Your task to perform on an android device: turn off data saver in the chrome app Image 0: 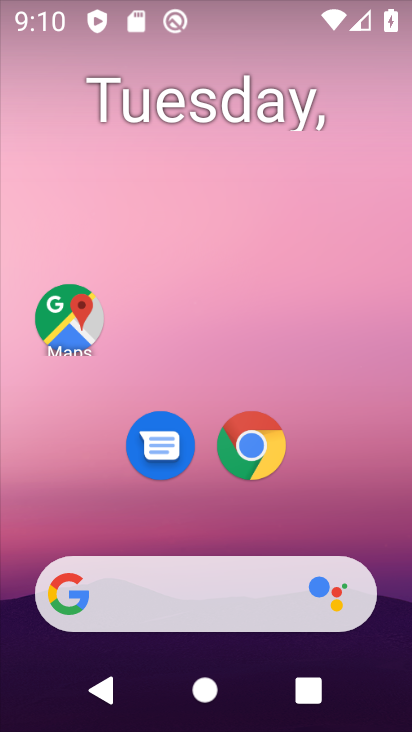
Step 0: click (263, 442)
Your task to perform on an android device: turn off data saver in the chrome app Image 1: 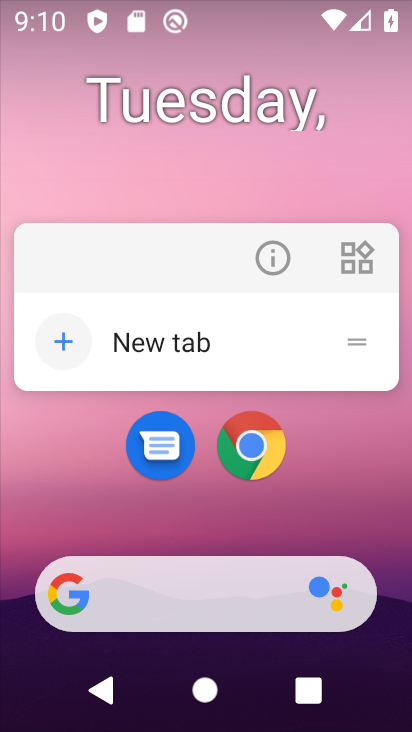
Step 1: click (261, 444)
Your task to perform on an android device: turn off data saver in the chrome app Image 2: 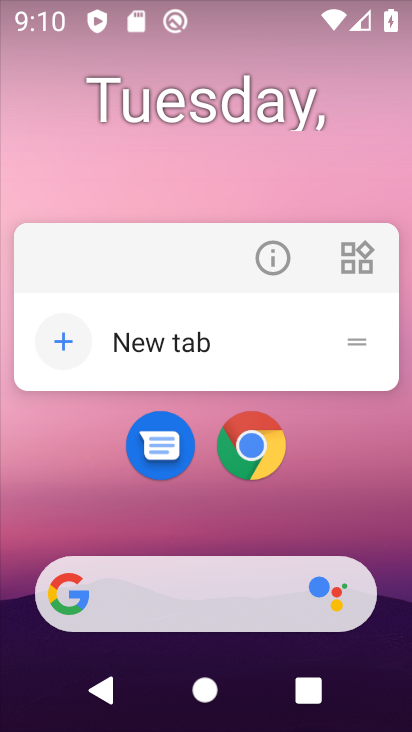
Step 2: click (248, 454)
Your task to perform on an android device: turn off data saver in the chrome app Image 3: 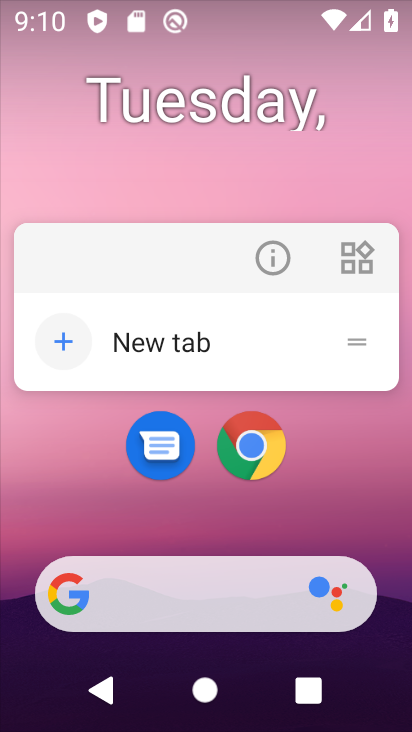
Step 3: click (255, 456)
Your task to perform on an android device: turn off data saver in the chrome app Image 4: 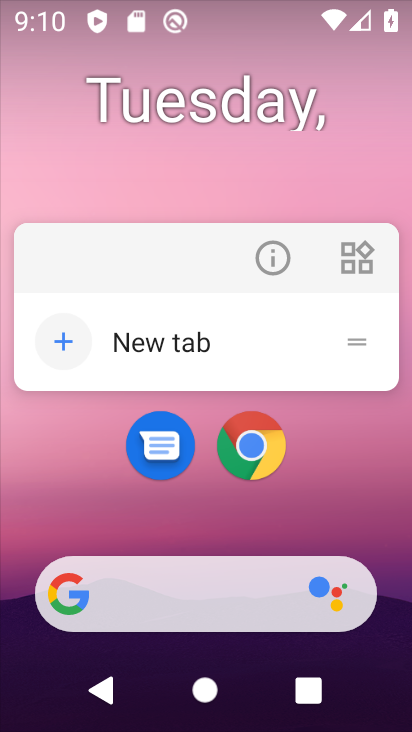
Step 4: click (253, 454)
Your task to perform on an android device: turn off data saver in the chrome app Image 5: 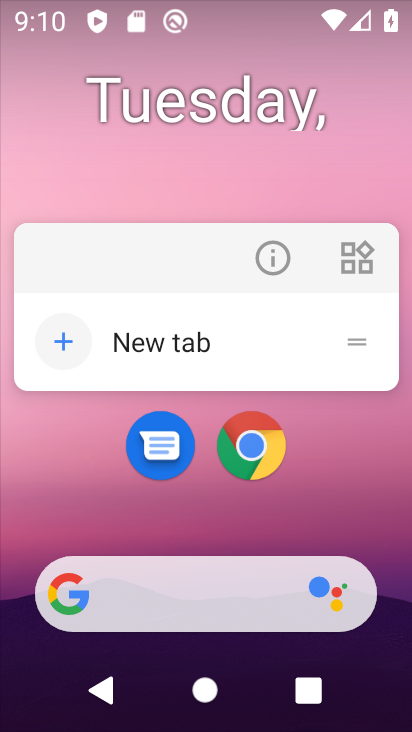
Step 5: click (250, 455)
Your task to perform on an android device: turn off data saver in the chrome app Image 6: 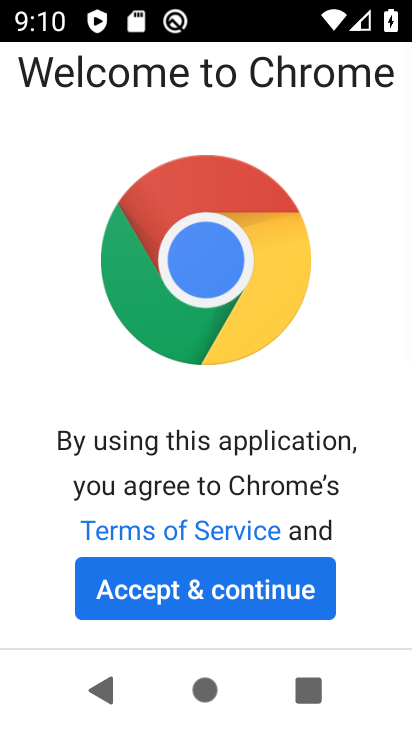
Step 6: click (273, 595)
Your task to perform on an android device: turn off data saver in the chrome app Image 7: 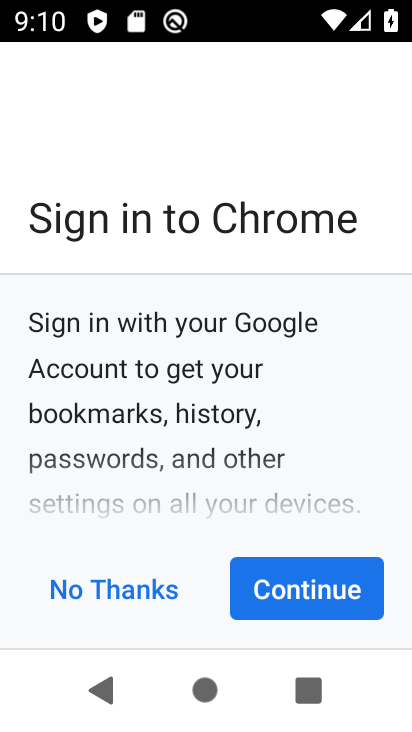
Step 7: click (329, 592)
Your task to perform on an android device: turn off data saver in the chrome app Image 8: 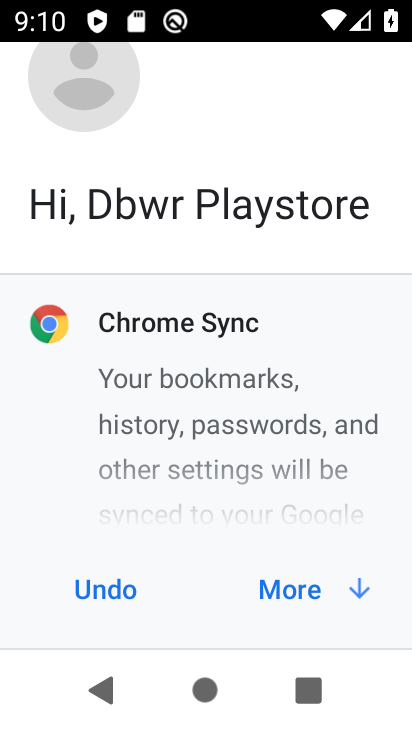
Step 8: click (329, 592)
Your task to perform on an android device: turn off data saver in the chrome app Image 9: 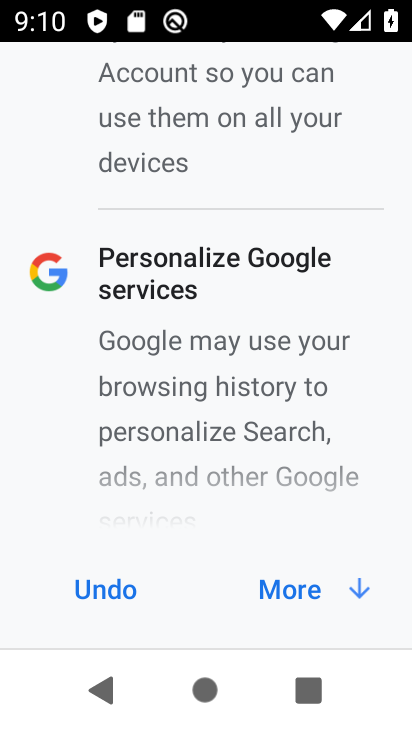
Step 9: click (329, 592)
Your task to perform on an android device: turn off data saver in the chrome app Image 10: 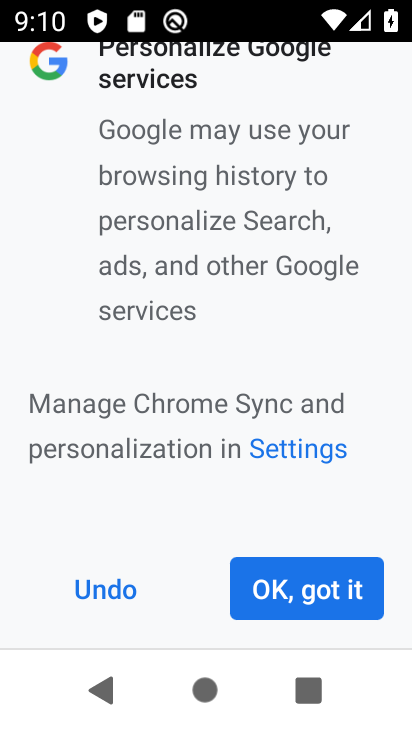
Step 10: click (329, 592)
Your task to perform on an android device: turn off data saver in the chrome app Image 11: 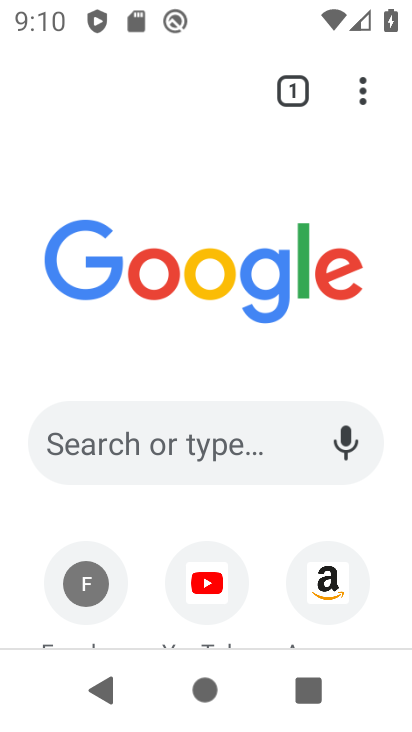
Step 11: drag from (378, 99) to (236, 489)
Your task to perform on an android device: turn off data saver in the chrome app Image 12: 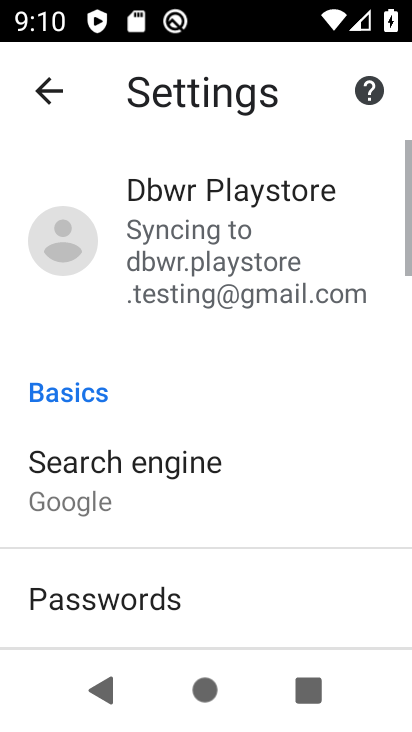
Step 12: drag from (169, 554) to (231, 181)
Your task to perform on an android device: turn off data saver in the chrome app Image 13: 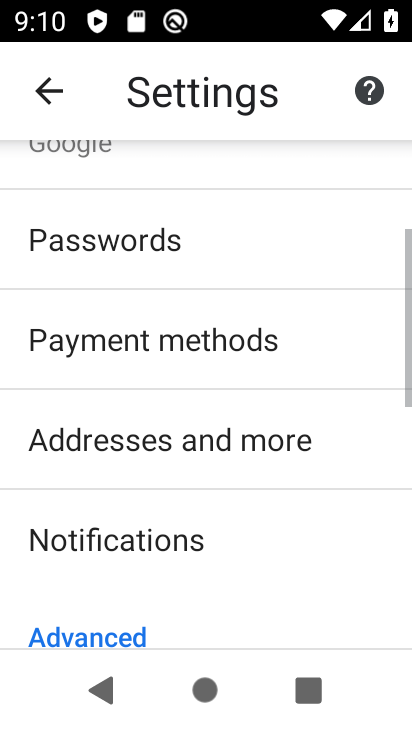
Step 13: drag from (195, 509) to (276, 125)
Your task to perform on an android device: turn off data saver in the chrome app Image 14: 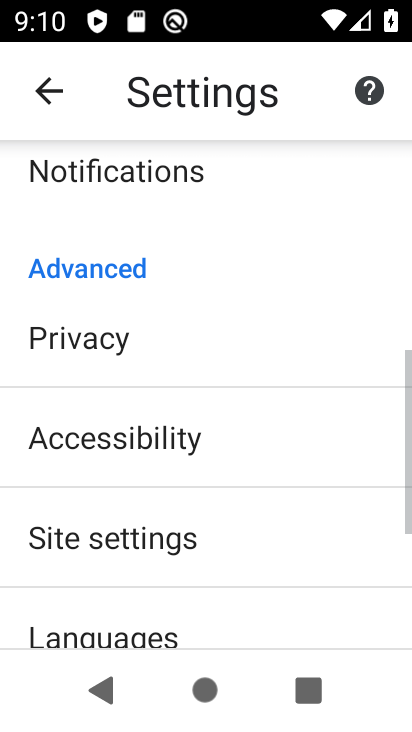
Step 14: drag from (184, 549) to (252, 269)
Your task to perform on an android device: turn off data saver in the chrome app Image 15: 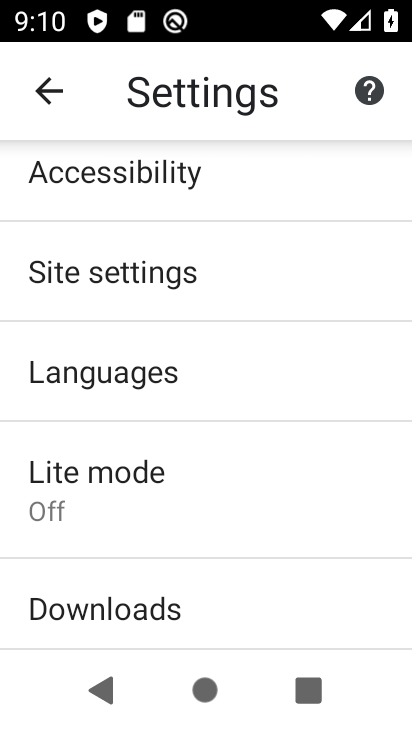
Step 15: click (193, 505)
Your task to perform on an android device: turn off data saver in the chrome app Image 16: 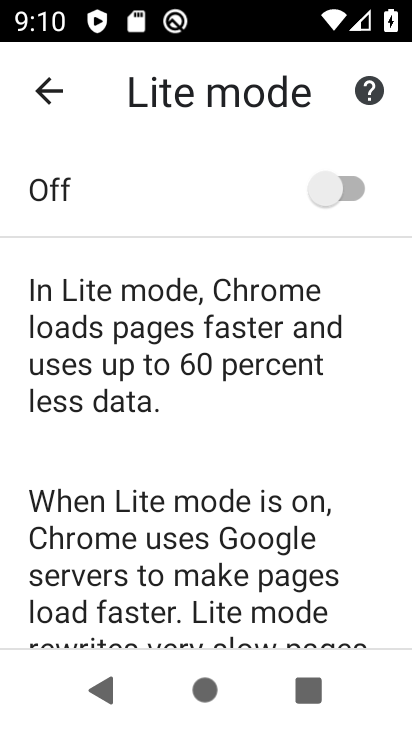
Step 16: task complete